Your task to perform on an android device: show emergency info Image 0: 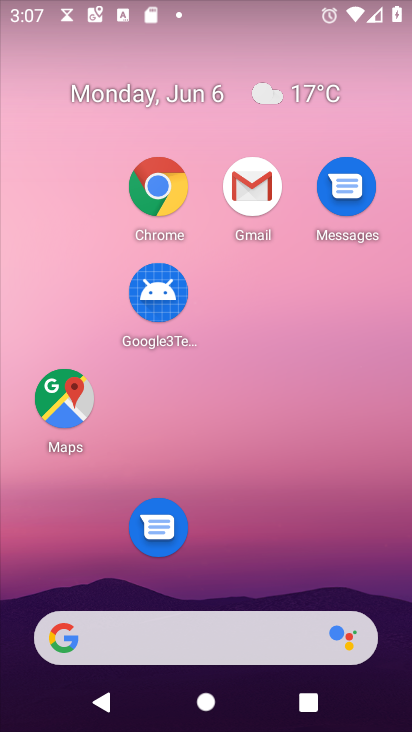
Step 0: drag from (256, 529) to (280, 59)
Your task to perform on an android device: show emergency info Image 1: 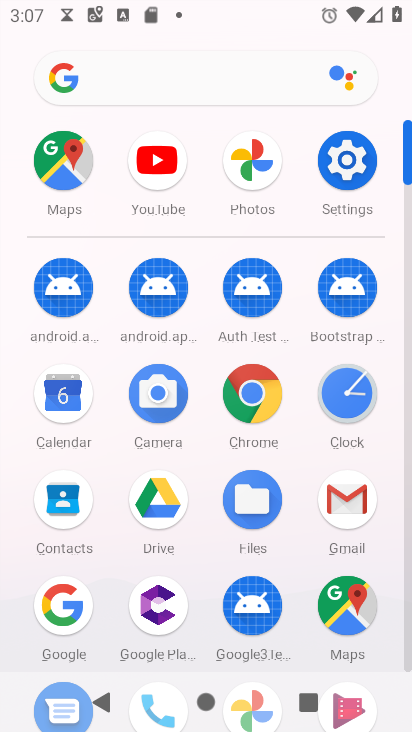
Step 1: click (352, 178)
Your task to perform on an android device: show emergency info Image 2: 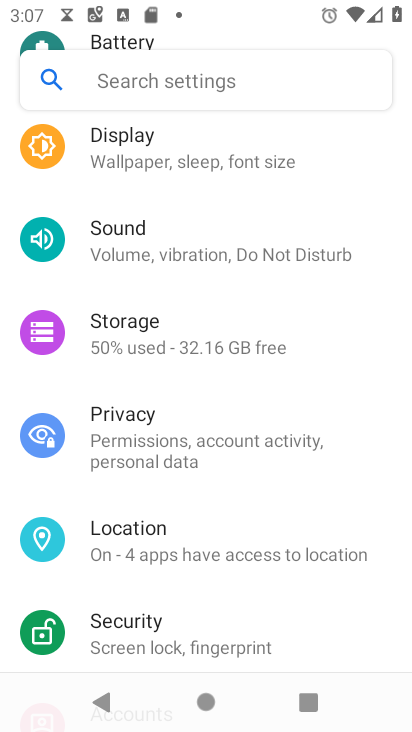
Step 2: drag from (273, 622) to (299, 128)
Your task to perform on an android device: show emergency info Image 3: 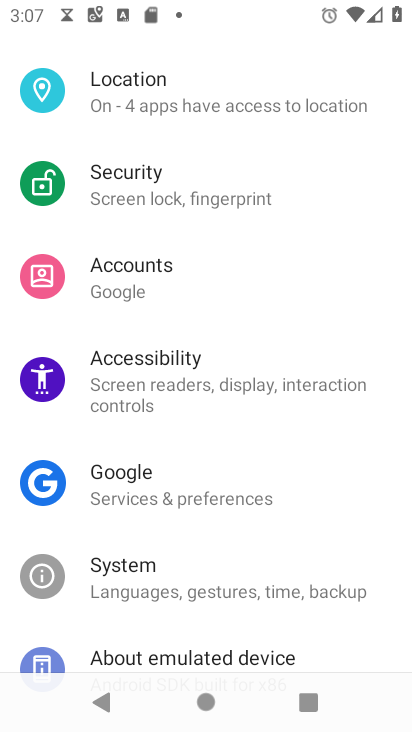
Step 3: drag from (268, 603) to (250, 115)
Your task to perform on an android device: show emergency info Image 4: 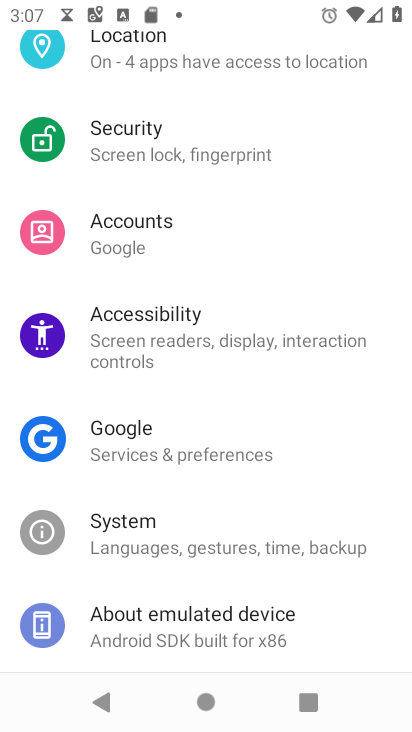
Step 4: click (189, 620)
Your task to perform on an android device: show emergency info Image 5: 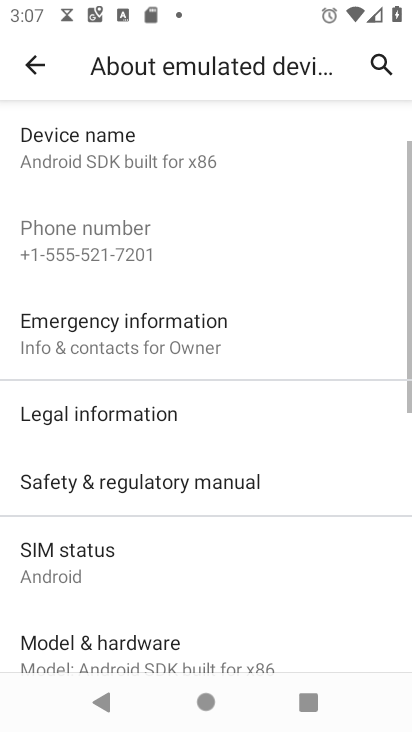
Step 5: click (177, 343)
Your task to perform on an android device: show emergency info Image 6: 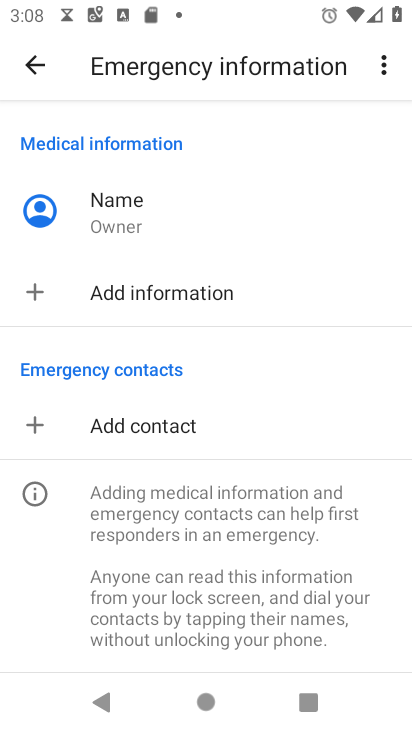
Step 6: task complete